Your task to perform on an android device: Go to internet settings Image 0: 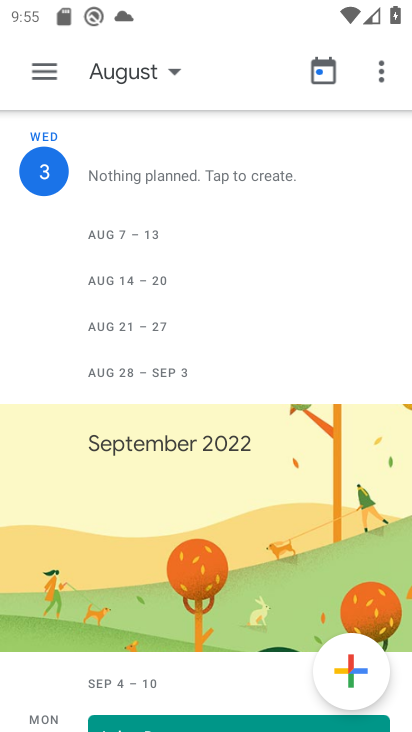
Step 0: press home button
Your task to perform on an android device: Go to internet settings Image 1: 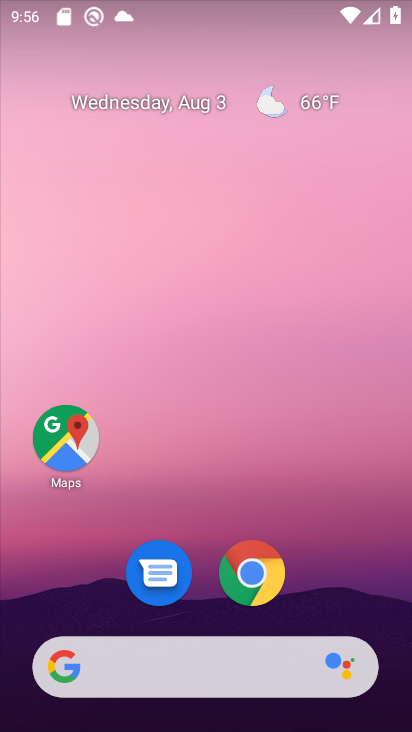
Step 1: drag from (171, 638) to (203, 76)
Your task to perform on an android device: Go to internet settings Image 2: 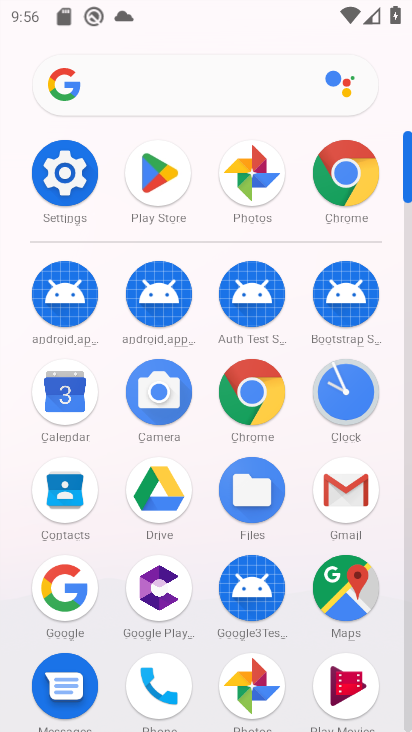
Step 2: click (60, 169)
Your task to perform on an android device: Go to internet settings Image 3: 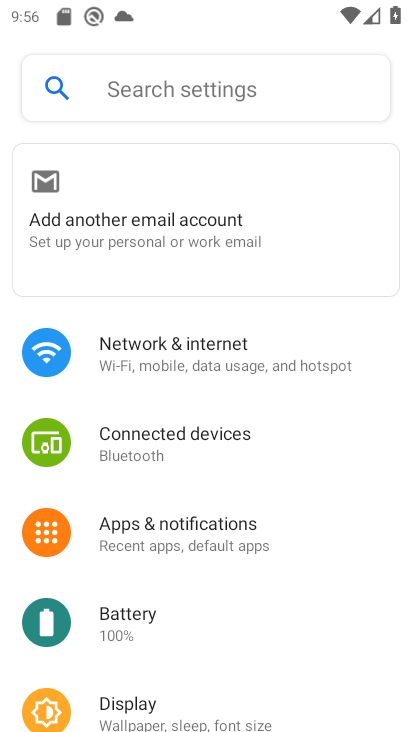
Step 3: click (168, 345)
Your task to perform on an android device: Go to internet settings Image 4: 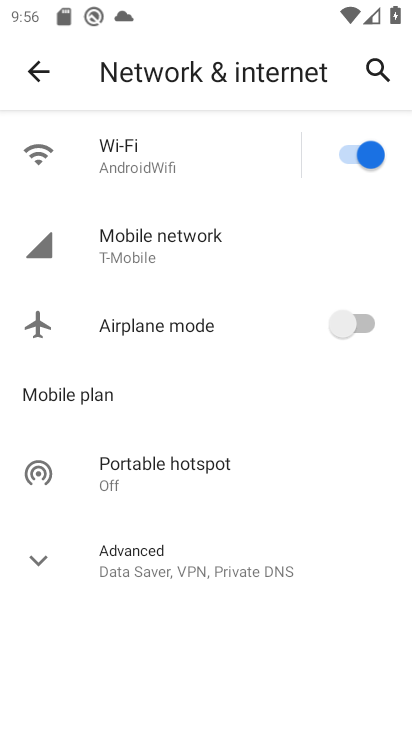
Step 4: task complete